Your task to perform on an android device: Go to eBay Image 0: 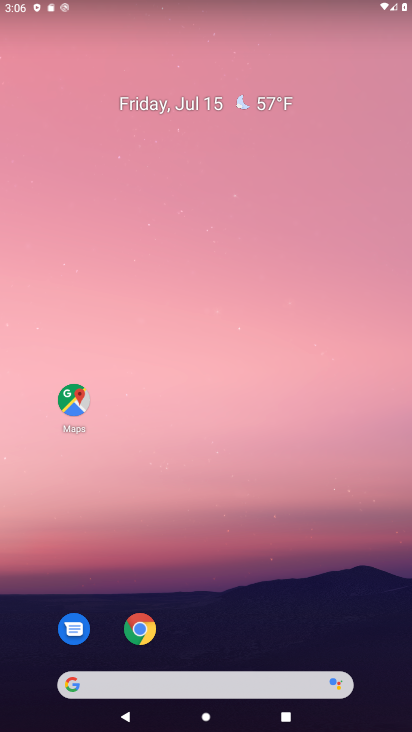
Step 0: drag from (293, 660) to (273, 5)
Your task to perform on an android device: Go to eBay Image 1: 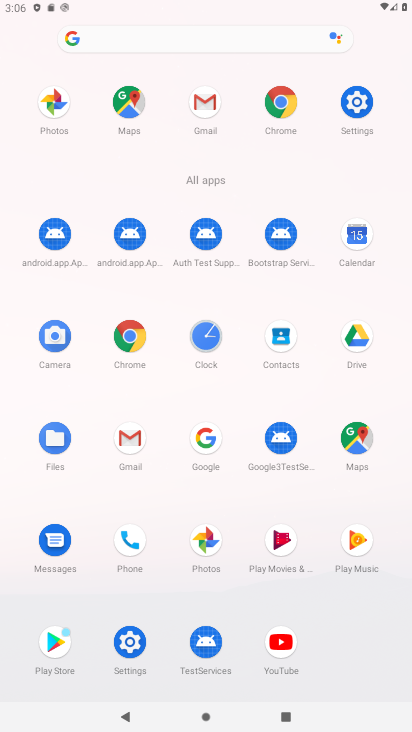
Step 1: drag from (211, 439) to (219, 86)
Your task to perform on an android device: Go to eBay Image 2: 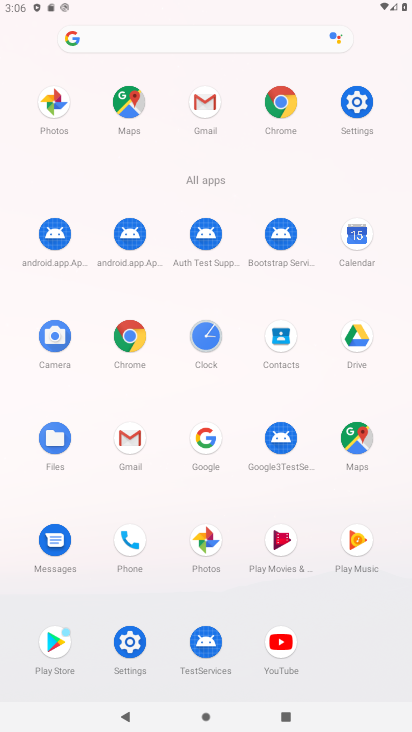
Step 2: click (291, 88)
Your task to perform on an android device: Go to eBay Image 3: 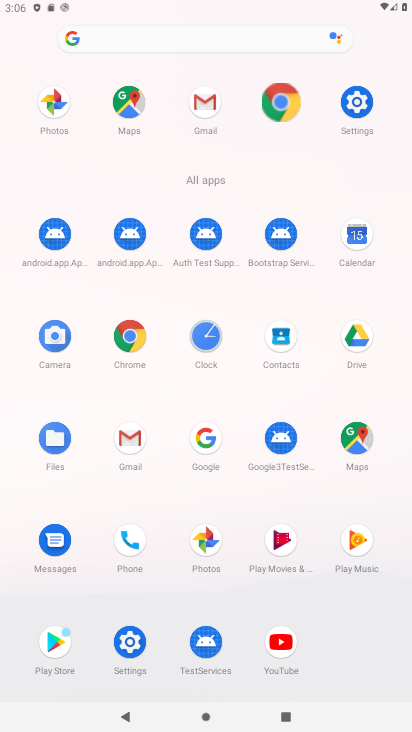
Step 3: click (285, 91)
Your task to perform on an android device: Go to eBay Image 4: 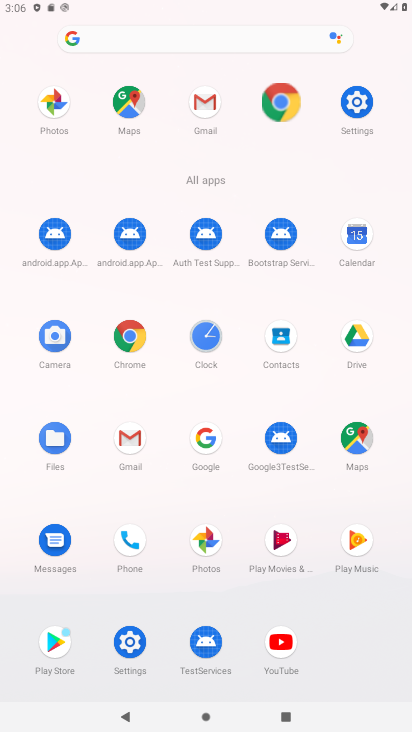
Step 4: click (285, 91)
Your task to perform on an android device: Go to eBay Image 5: 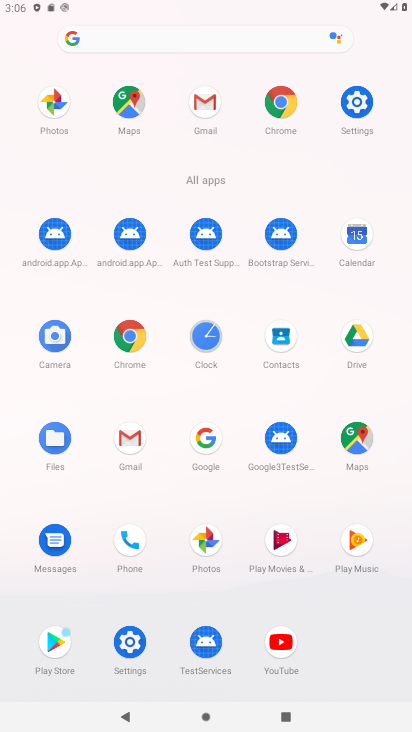
Step 5: click (302, 111)
Your task to perform on an android device: Go to eBay Image 6: 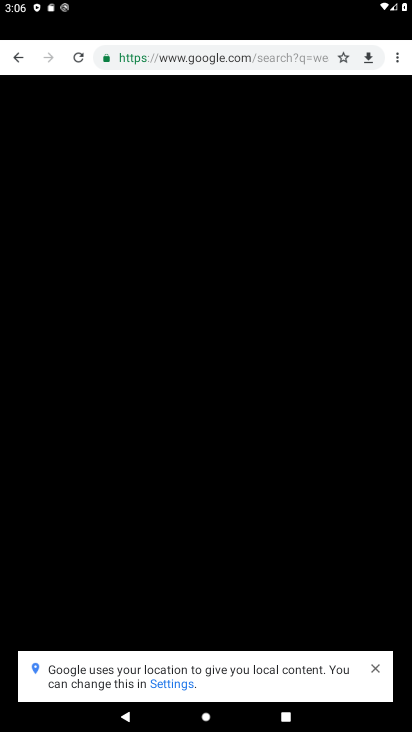
Step 6: drag from (215, 462) to (173, 113)
Your task to perform on an android device: Go to eBay Image 7: 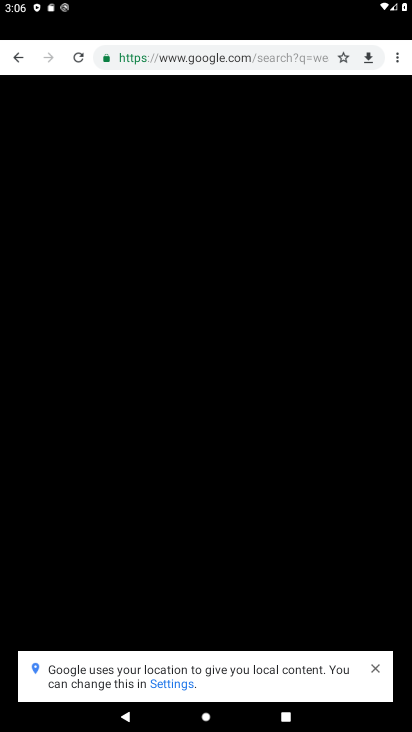
Step 7: drag from (166, 60) to (148, 314)
Your task to perform on an android device: Go to eBay Image 8: 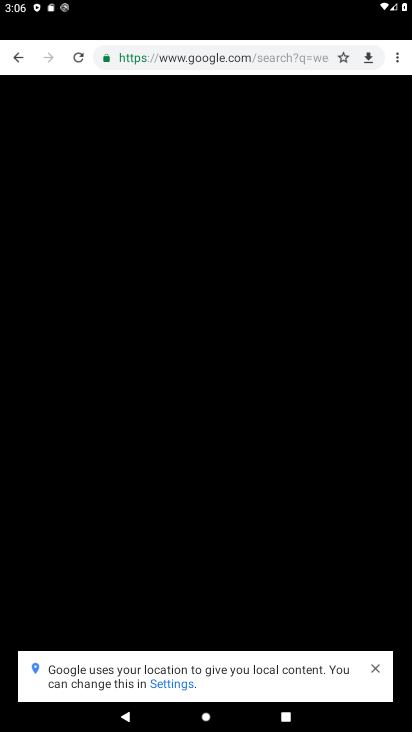
Step 8: drag from (156, 192) to (193, 299)
Your task to perform on an android device: Go to eBay Image 9: 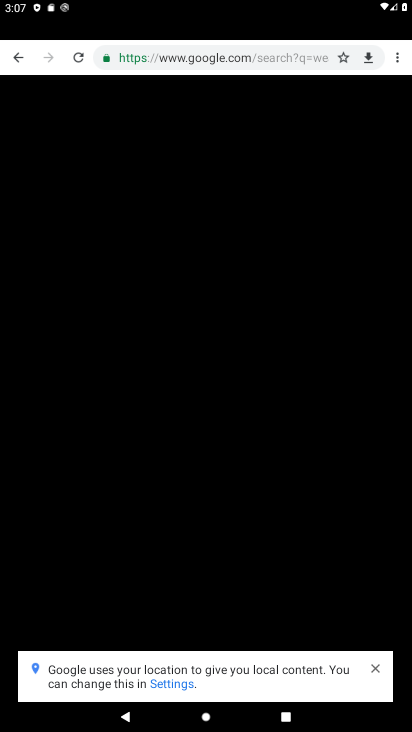
Step 9: click (4, 49)
Your task to perform on an android device: Go to eBay Image 10: 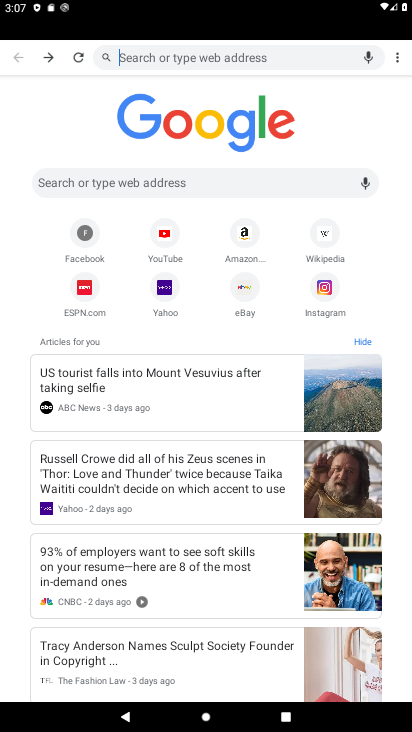
Step 10: click (244, 272)
Your task to perform on an android device: Go to eBay Image 11: 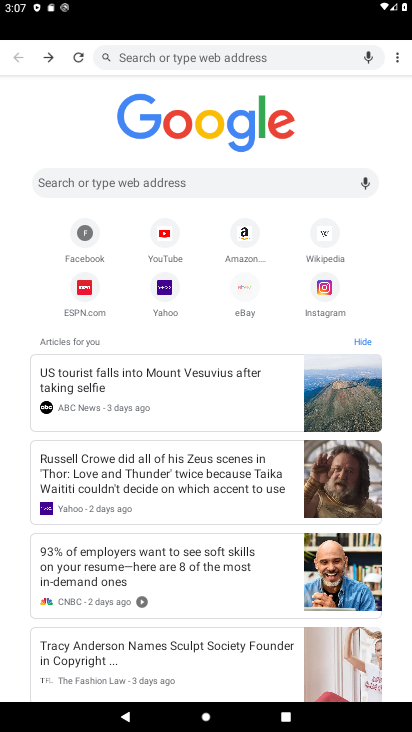
Step 11: drag from (243, 280) to (240, 322)
Your task to perform on an android device: Go to eBay Image 12: 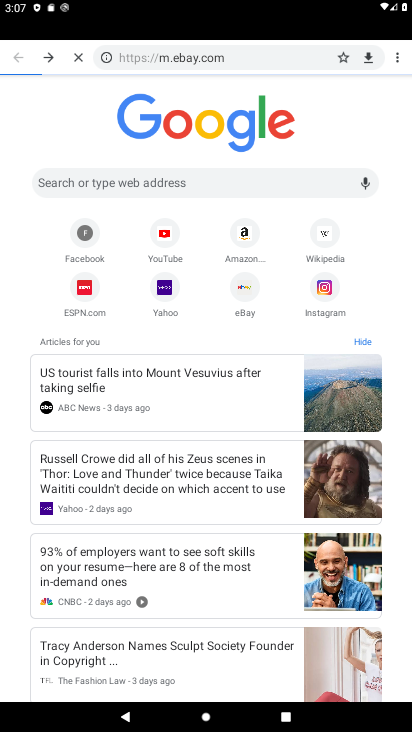
Step 12: click (235, 302)
Your task to perform on an android device: Go to eBay Image 13: 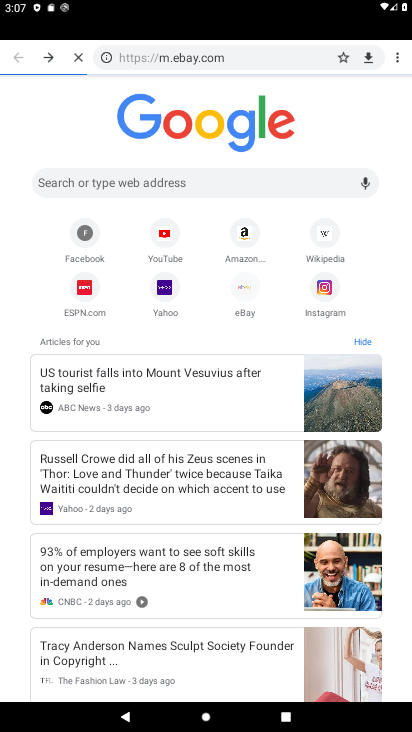
Step 13: click (242, 294)
Your task to perform on an android device: Go to eBay Image 14: 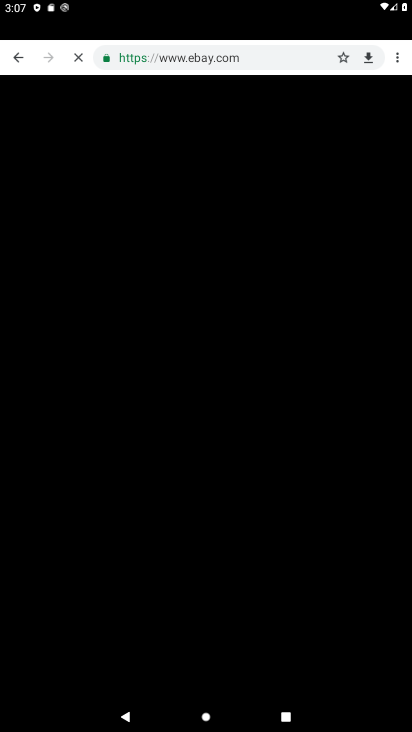
Step 14: click (247, 290)
Your task to perform on an android device: Go to eBay Image 15: 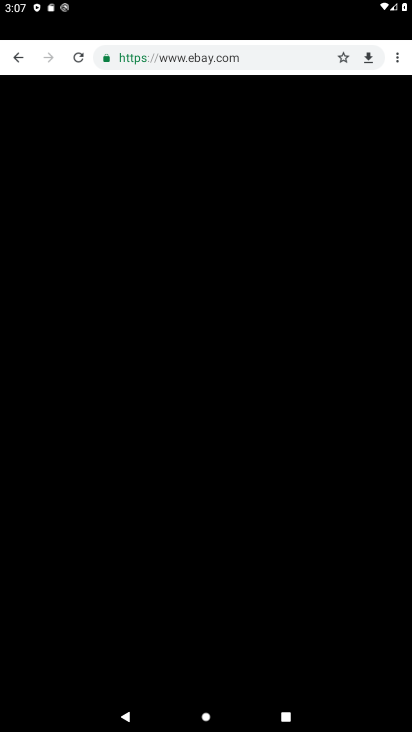
Step 15: task complete